Your task to perform on an android device: When is my next appointment? Image 0: 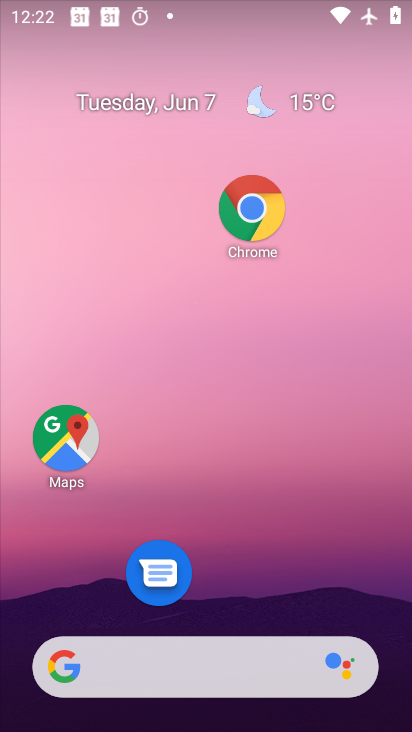
Step 0: drag from (225, 587) to (217, 158)
Your task to perform on an android device: When is my next appointment? Image 1: 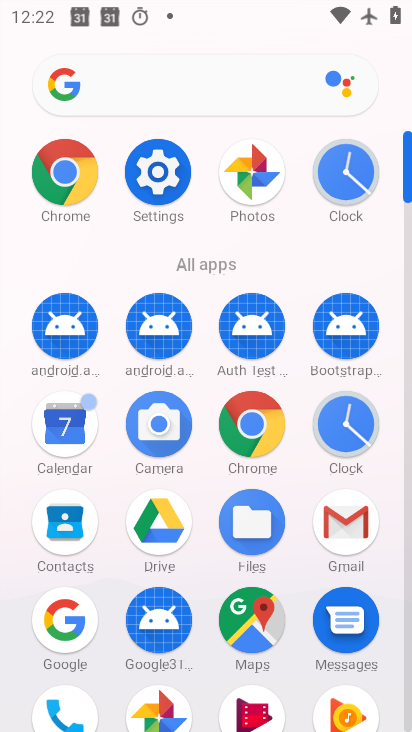
Step 1: click (80, 445)
Your task to perform on an android device: When is my next appointment? Image 2: 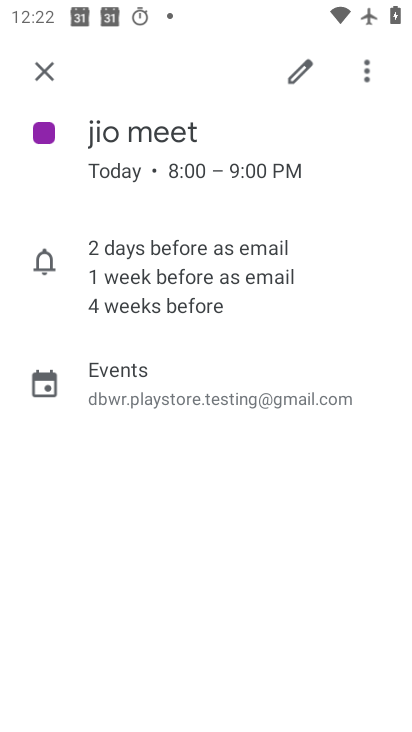
Step 2: click (45, 74)
Your task to perform on an android device: When is my next appointment? Image 3: 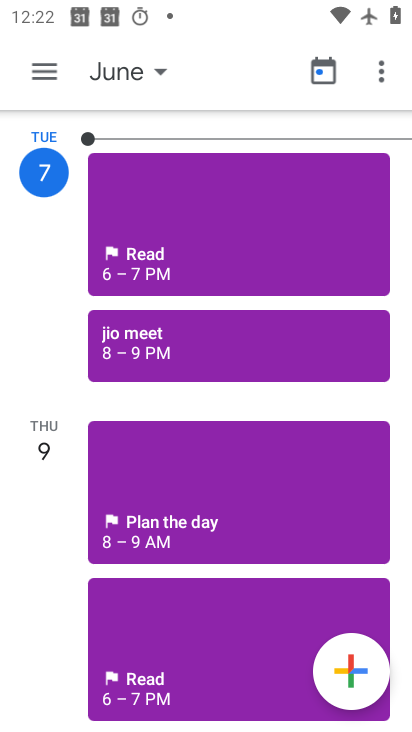
Step 3: task complete